Your task to perform on an android device: find snoozed emails in the gmail app Image 0: 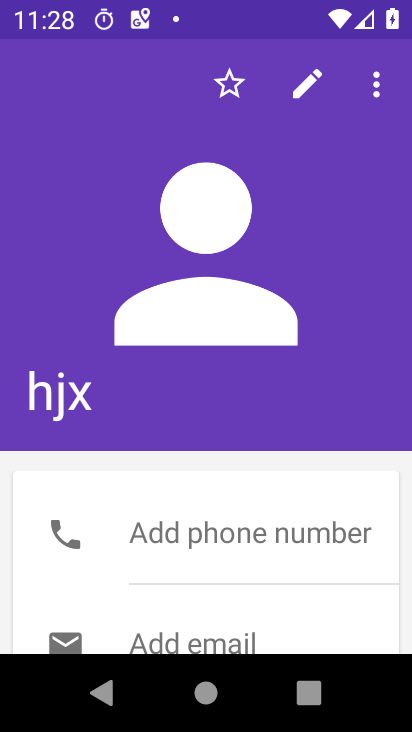
Step 0: press home button
Your task to perform on an android device: find snoozed emails in the gmail app Image 1: 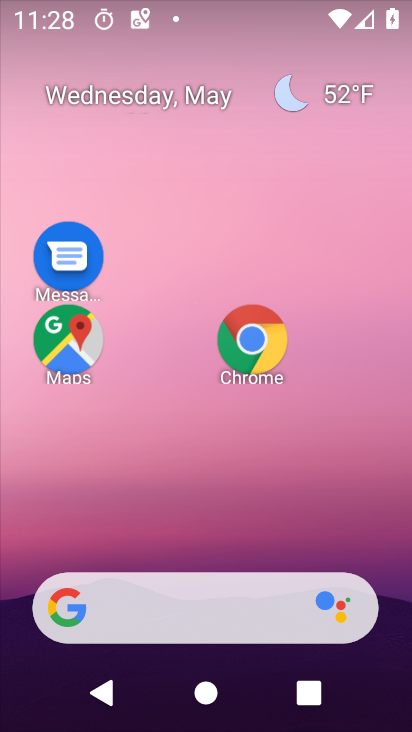
Step 1: drag from (197, 519) to (182, 51)
Your task to perform on an android device: find snoozed emails in the gmail app Image 2: 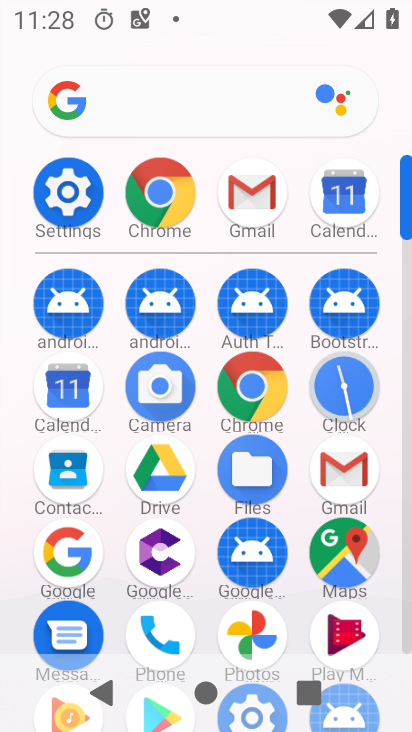
Step 2: click (258, 195)
Your task to perform on an android device: find snoozed emails in the gmail app Image 3: 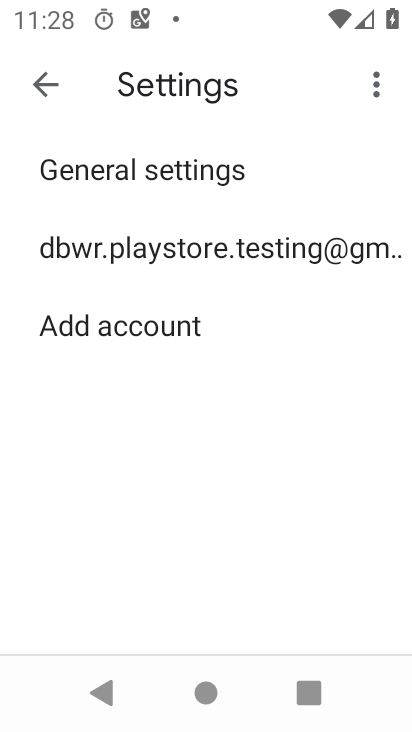
Step 3: press back button
Your task to perform on an android device: find snoozed emails in the gmail app Image 4: 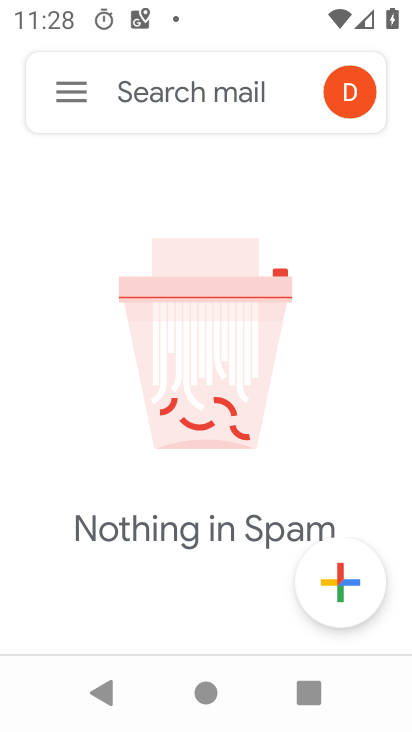
Step 4: click (61, 84)
Your task to perform on an android device: find snoozed emails in the gmail app Image 5: 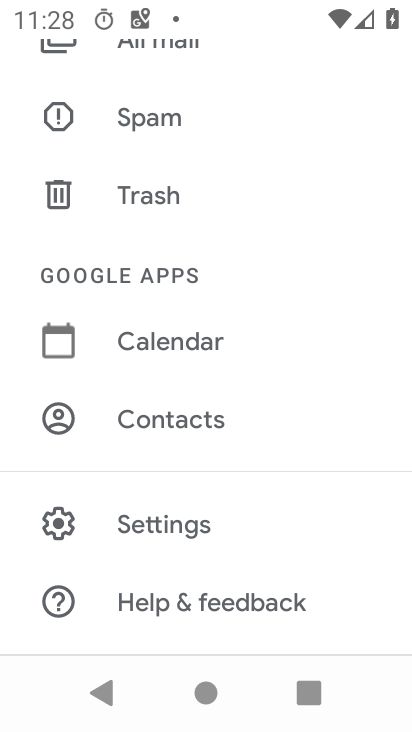
Step 5: drag from (210, 163) to (359, 600)
Your task to perform on an android device: find snoozed emails in the gmail app Image 6: 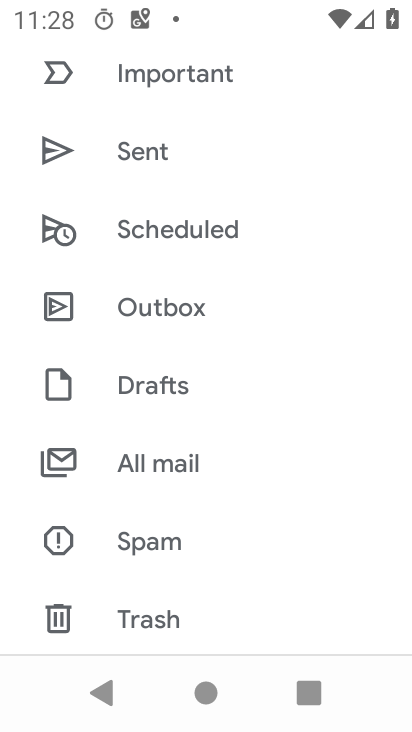
Step 6: drag from (153, 121) to (260, 429)
Your task to perform on an android device: find snoozed emails in the gmail app Image 7: 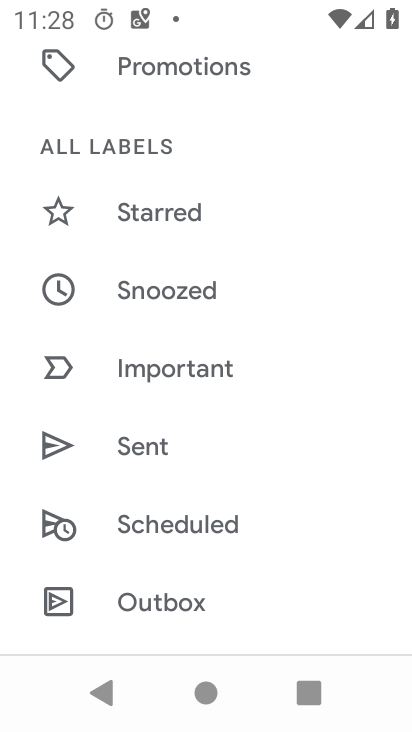
Step 7: click (188, 315)
Your task to perform on an android device: find snoozed emails in the gmail app Image 8: 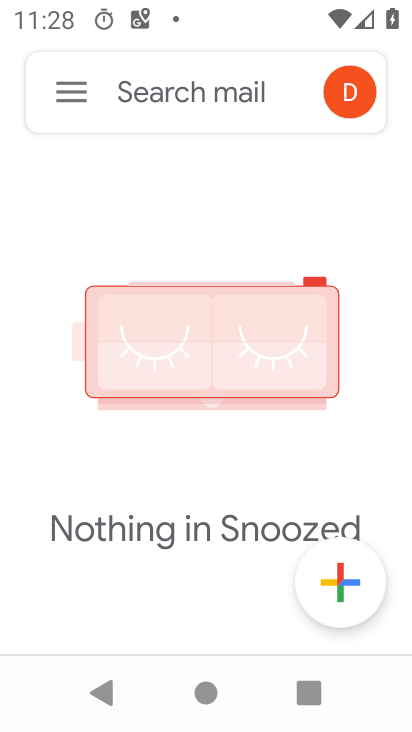
Step 8: task complete